Your task to perform on an android device: Search for the new steph curry shoes on Amazon. Image 0: 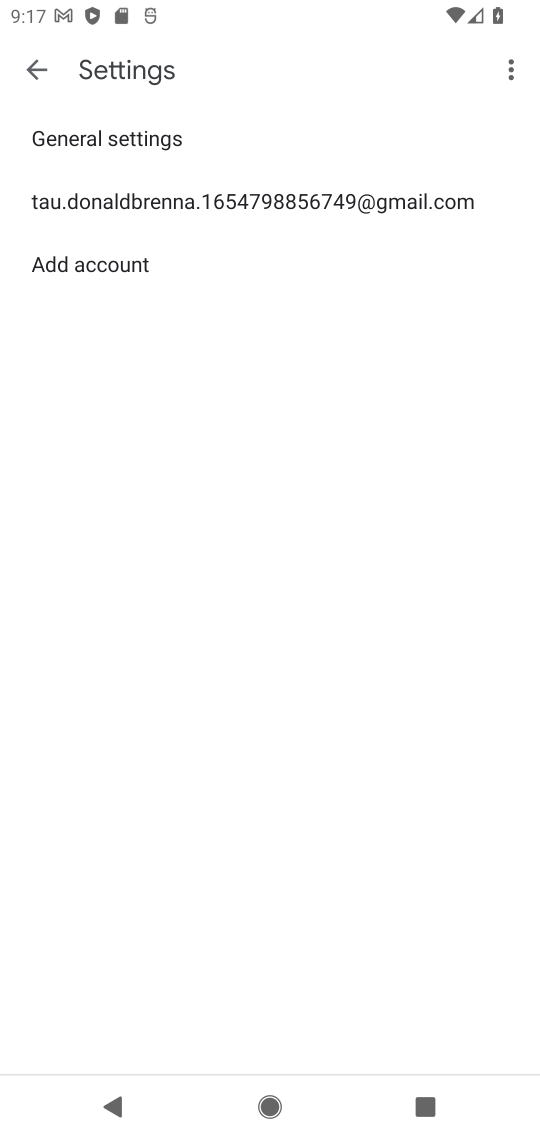
Step 0: press home button
Your task to perform on an android device: Search for the new steph curry shoes on Amazon. Image 1: 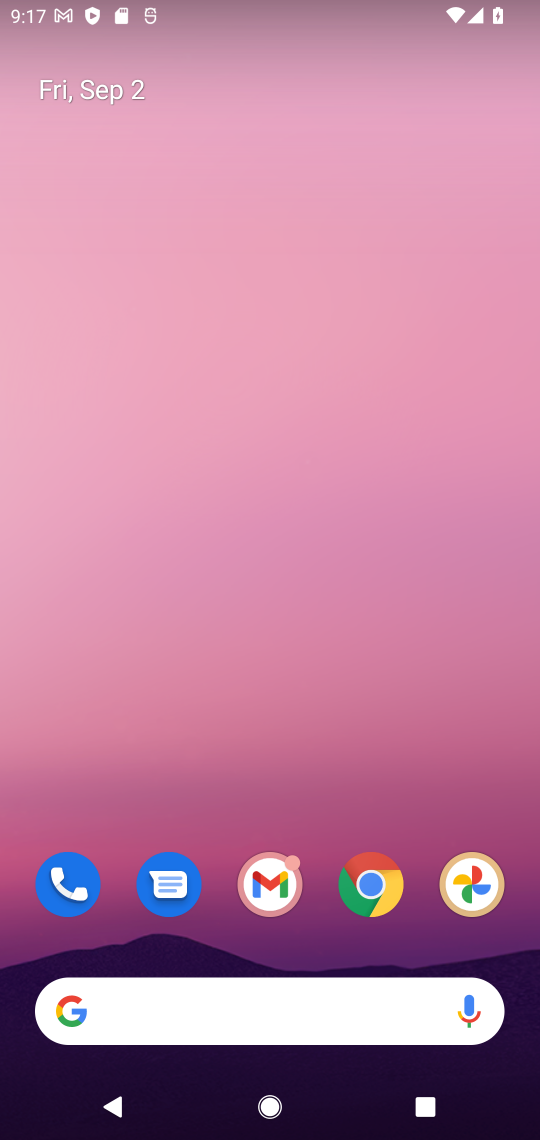
Step 1: click (376, 889)
Your task to perform on an android device: Search for the new steph curry shoes on Amazon. Image 2: 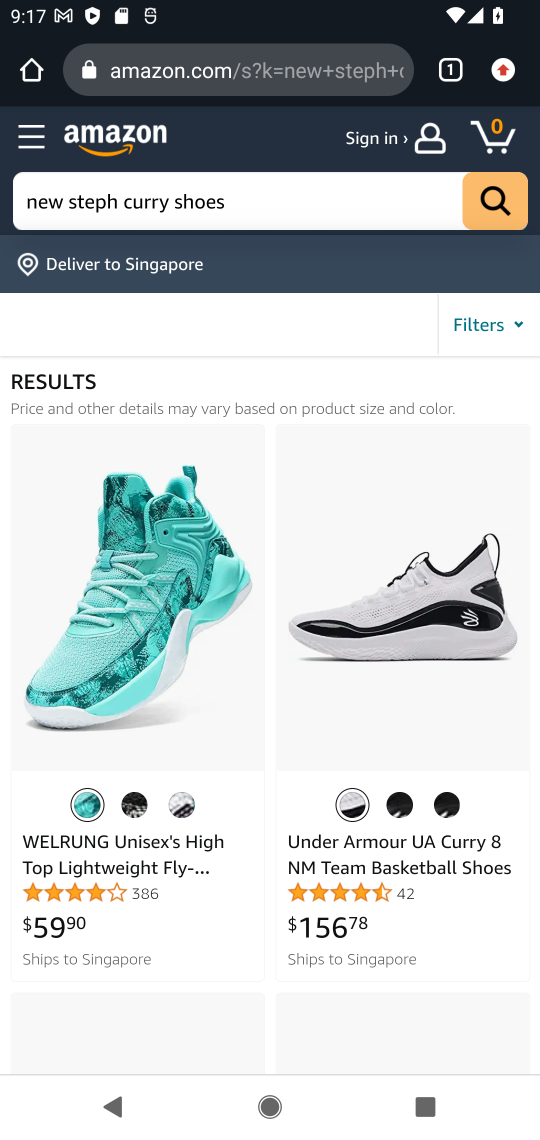
Step 2: task complete